Your task to perform on an android device: Toggle the flashlight Image 0: 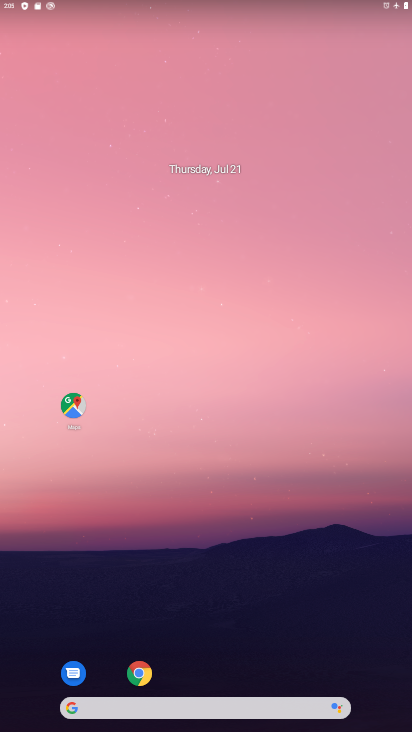
Step 0: drag from (189, 639) to (222, 249)
Your task to perform on an android device: Toggle the flashlight Image 1: 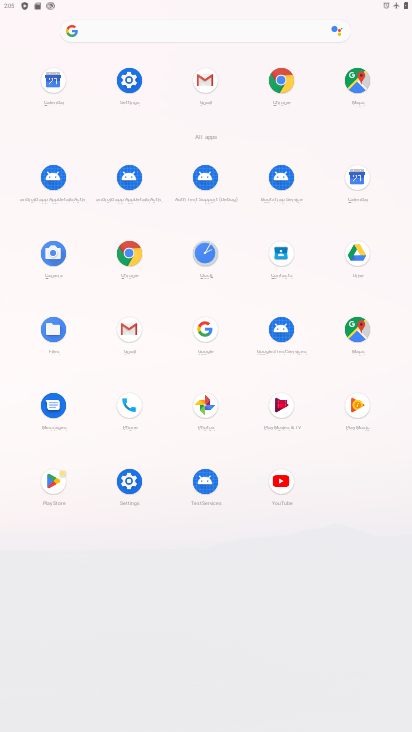
Step 1: task complete